Your task to perform on an android device: Toggle the flashlight Image 0: 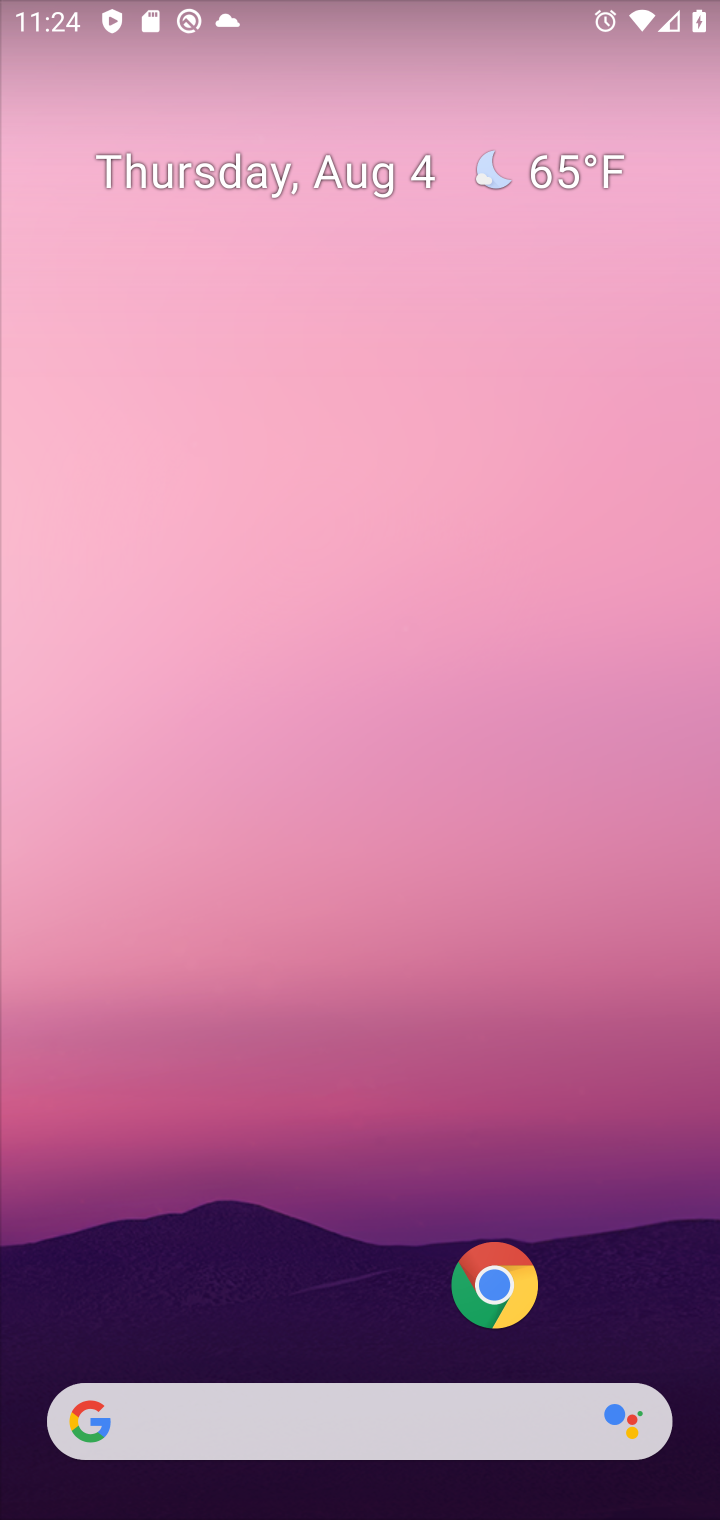
Step 0: press home button
Your task to perform on an android device: Toggle the flashlight Image 1: 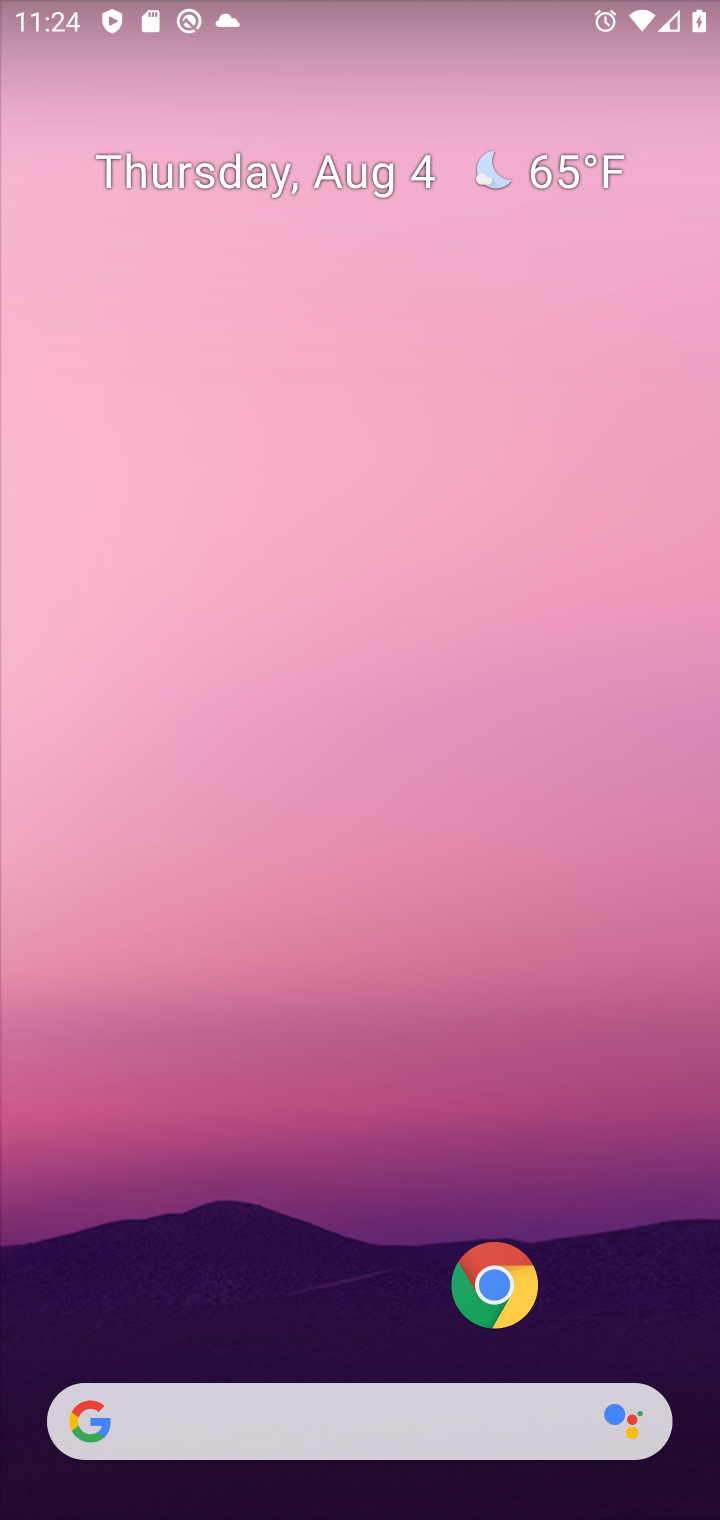
Step 1: task complete